Your task to perform on an android device: Show the shopping cart on costco. Search for "macbook pro 15 inch" on costco, select the first entry, add it to the cart, then select checkout. Image 0: 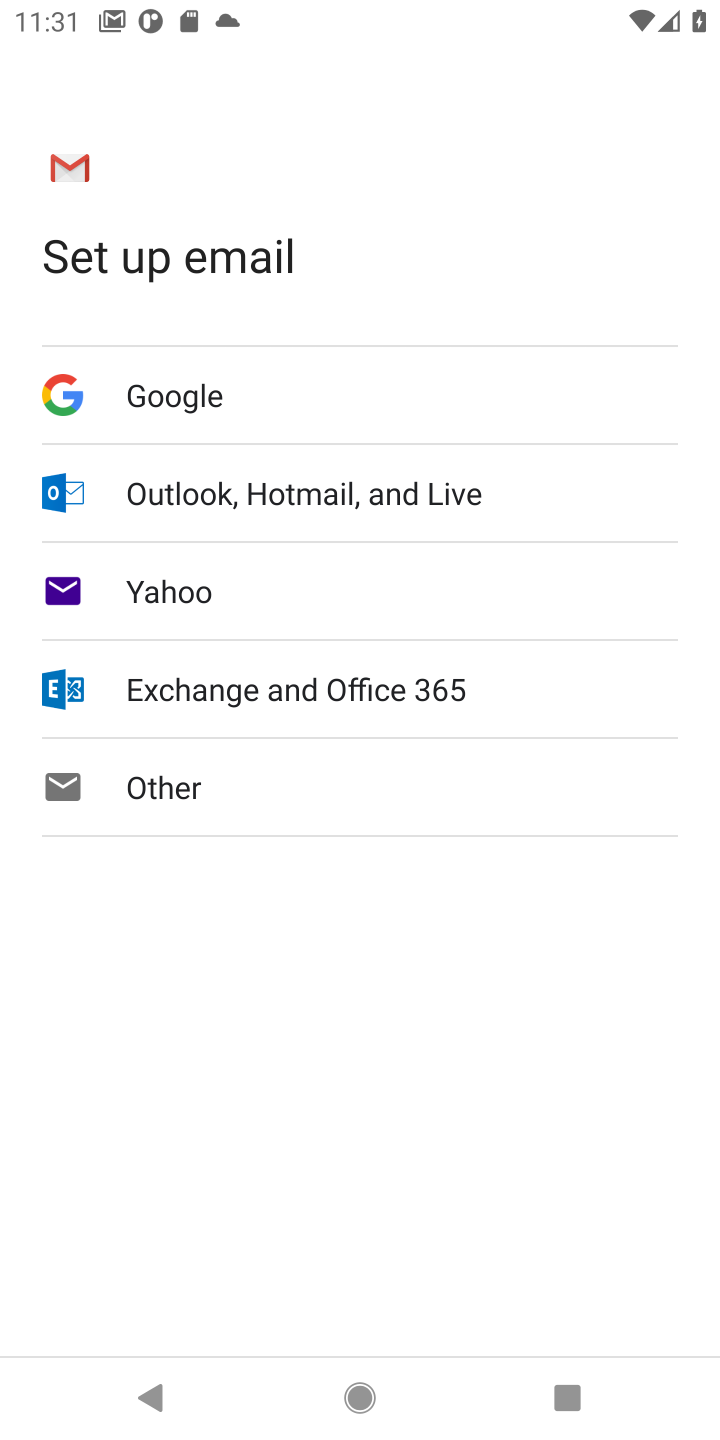
Step 0: press home button
Your task to perform on an android device: Show the shopping cart on costco. Search for "macbook pro 15 inch" on costco, select the first entry, add it to the cart, then select checkout. Image 1: 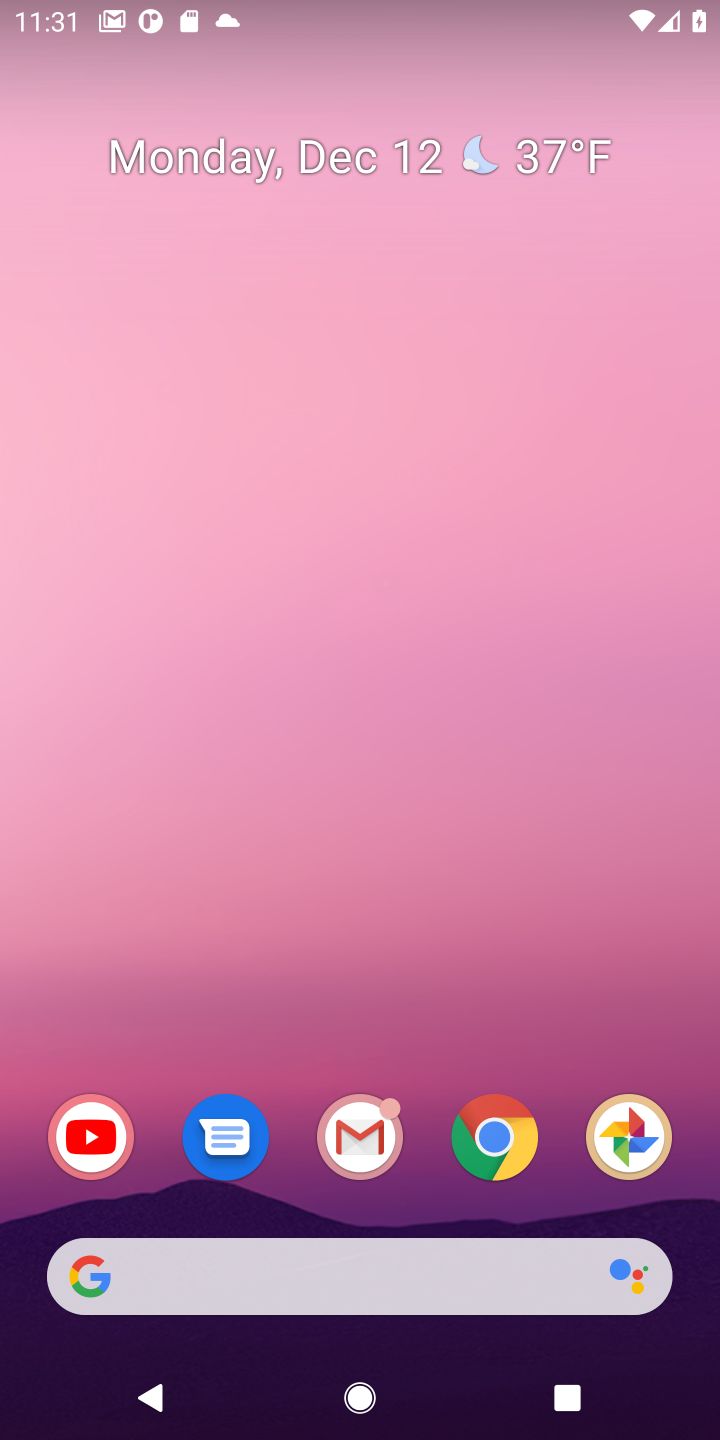
Step 1: click (425, 1265)
Your task to perform on an android device: Show the shopping cart on costco. Search for "macbook pro 15 inch" on costco, select the first entry, add it to the cart, then select checkout. Image 2: 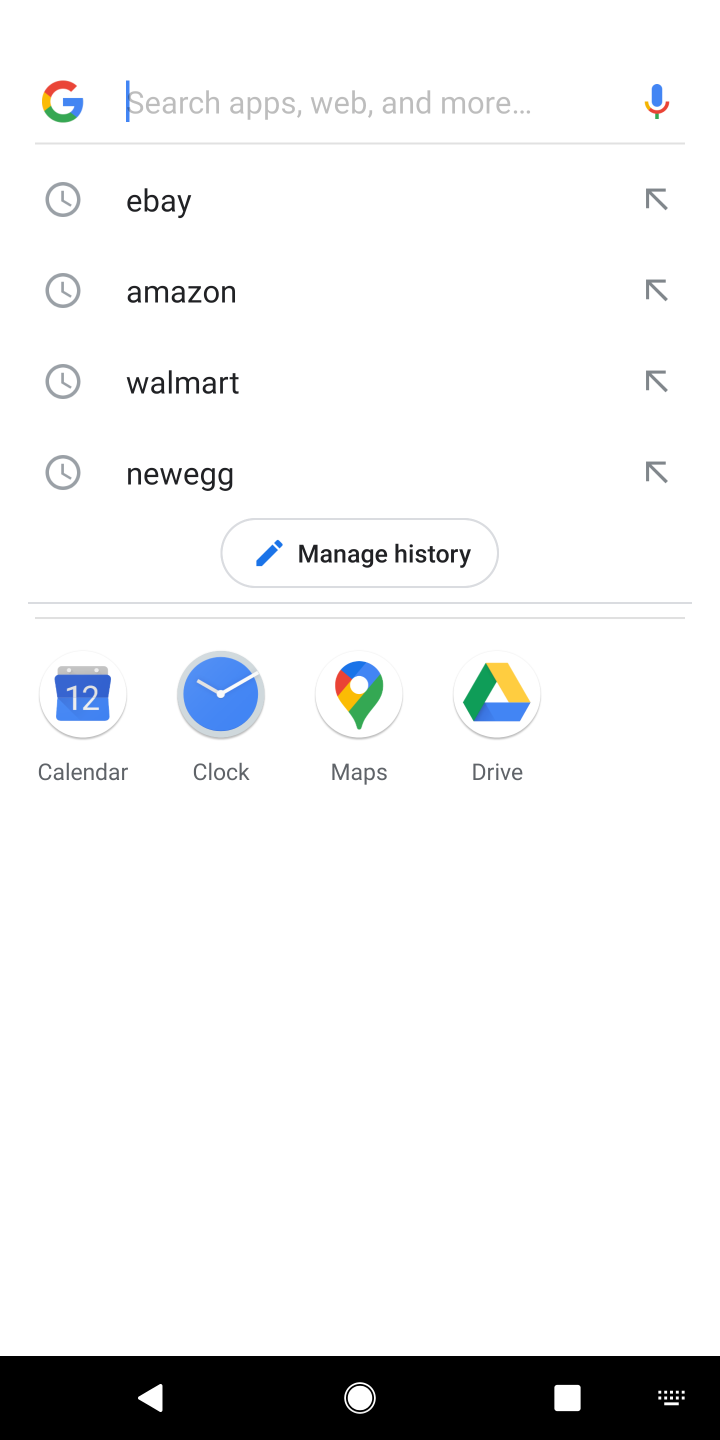
Step 2: type "costco"
Your task to perform on an android device: Show the shopping cart on costco. Search for "macbook pro 15 inch" on costco, select the first entry, add it to the cart, then select checkout. Image 3: 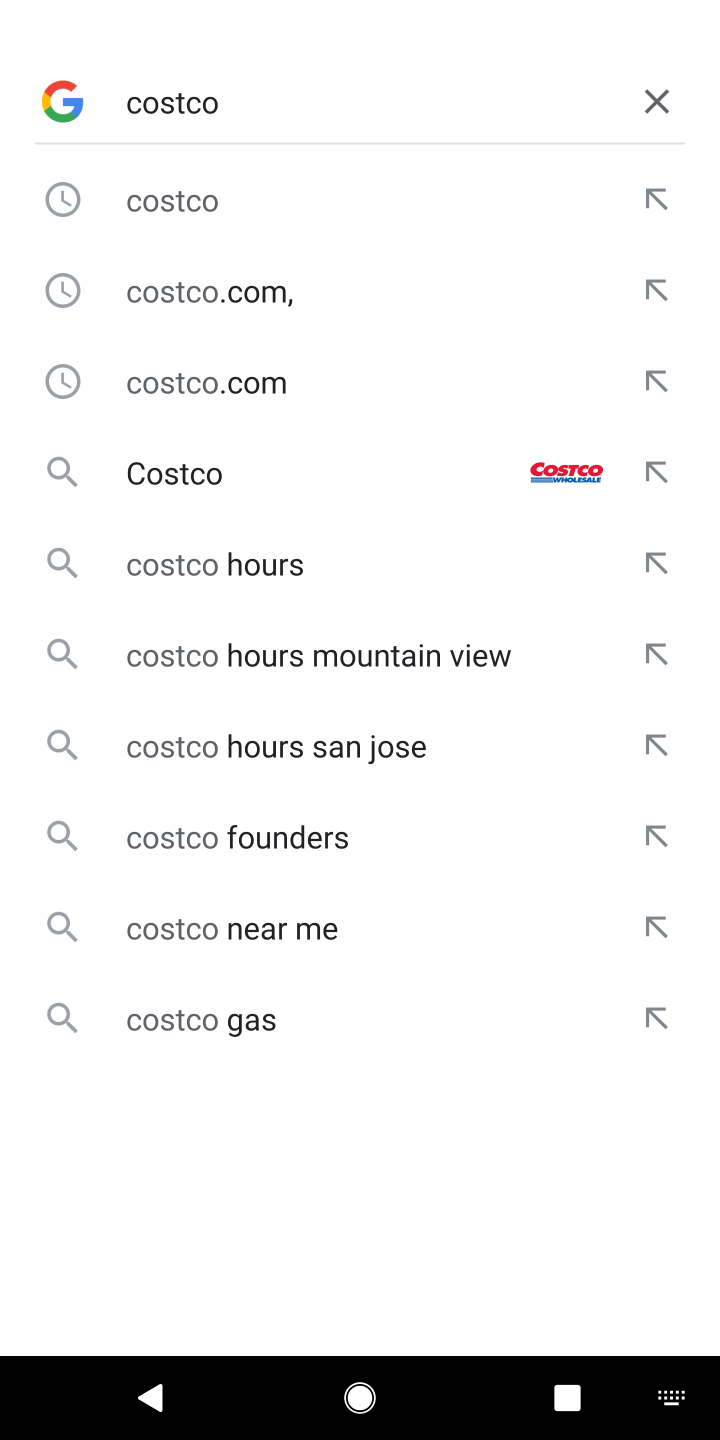
Step 3: click (293, 481)
Your task to perform on an android device: Show the shopping cart on costco. Search for "macbook pro 15 inch" on costco, select the first entry, add it to the cart, then select checkout. Image 4: 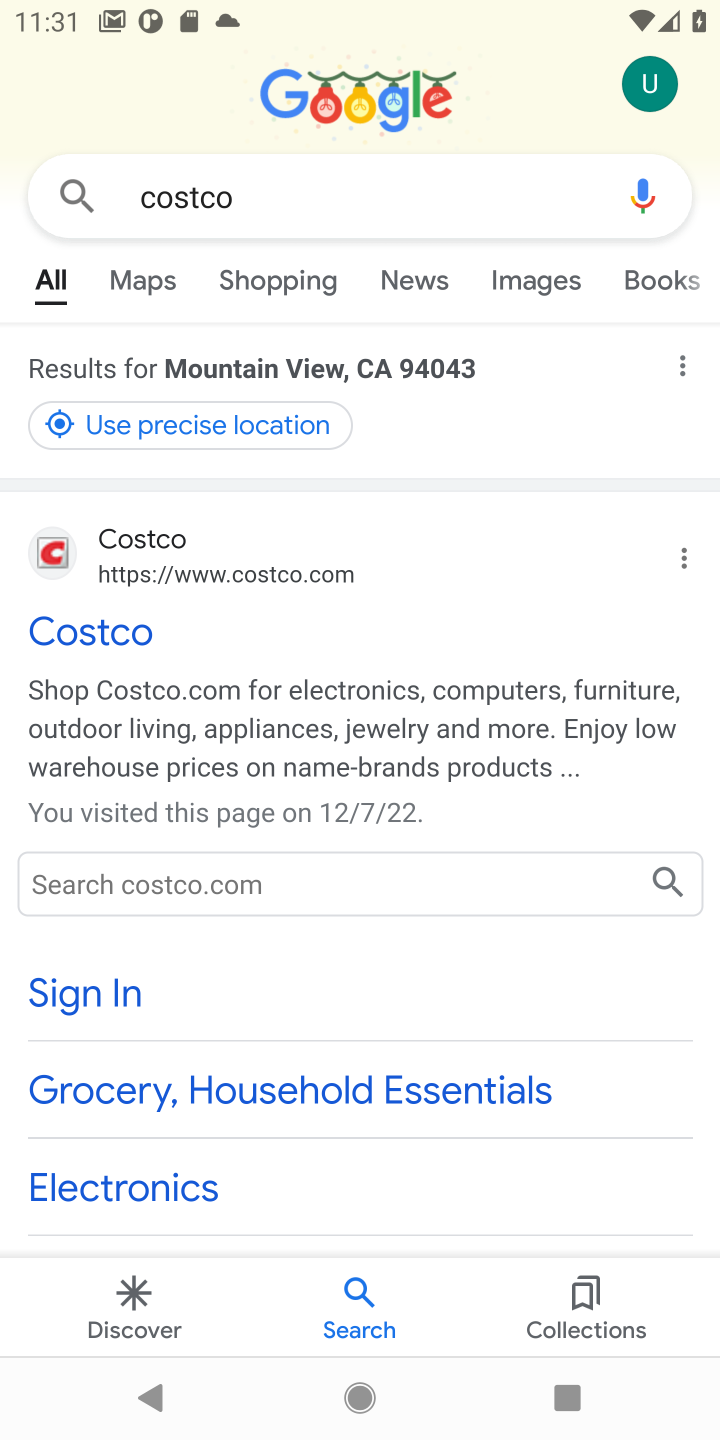
Step 4: click (131, 640)
Your task to perform on an android device: Show the shopping cart on costco. Search for "macbook pro 15 inch" on costco, select the first entry, add it to the cart, then select checkout. Image 5: 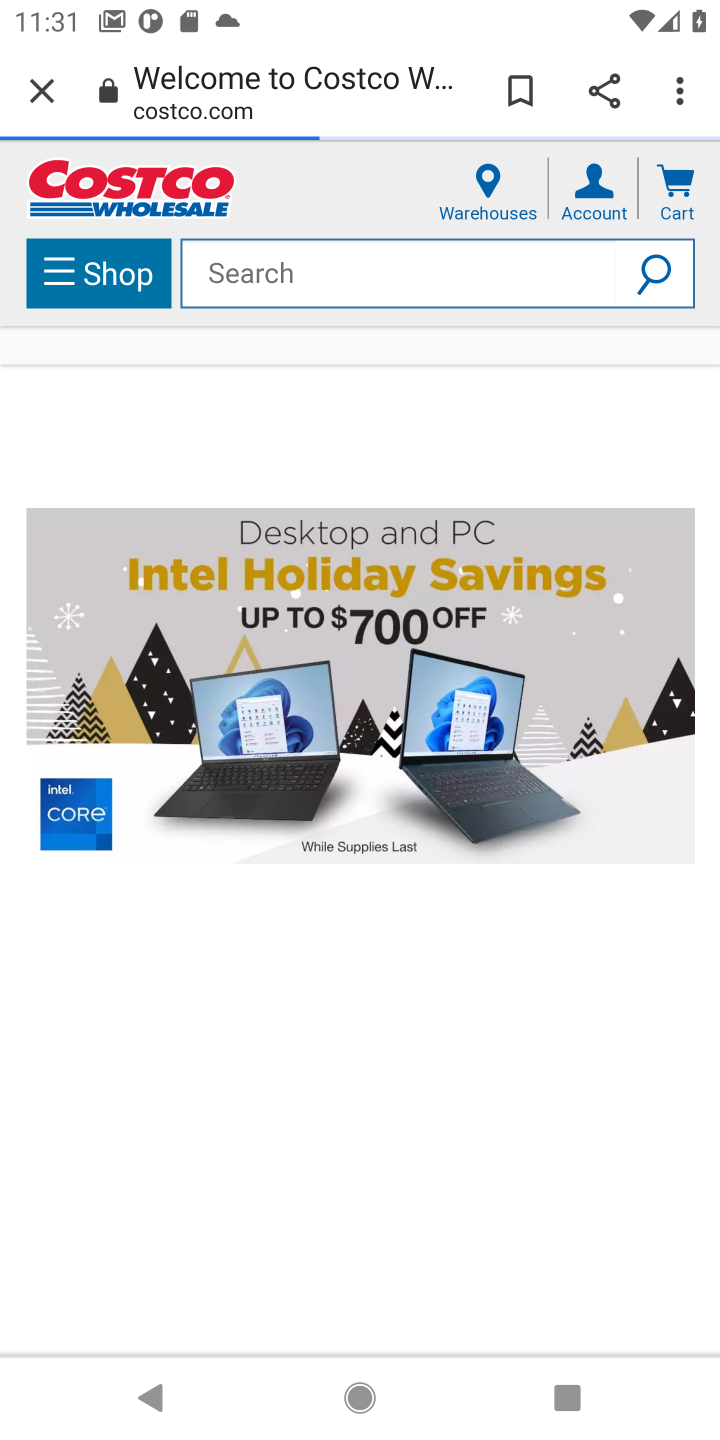
Step 5: click (361, 264)
Your task to perform on an android device: Show the shopping cart on costco. Search for "macbook pro 15 inch" on costco, select the first entry, add it to the cart, then select checkout. Image 6: 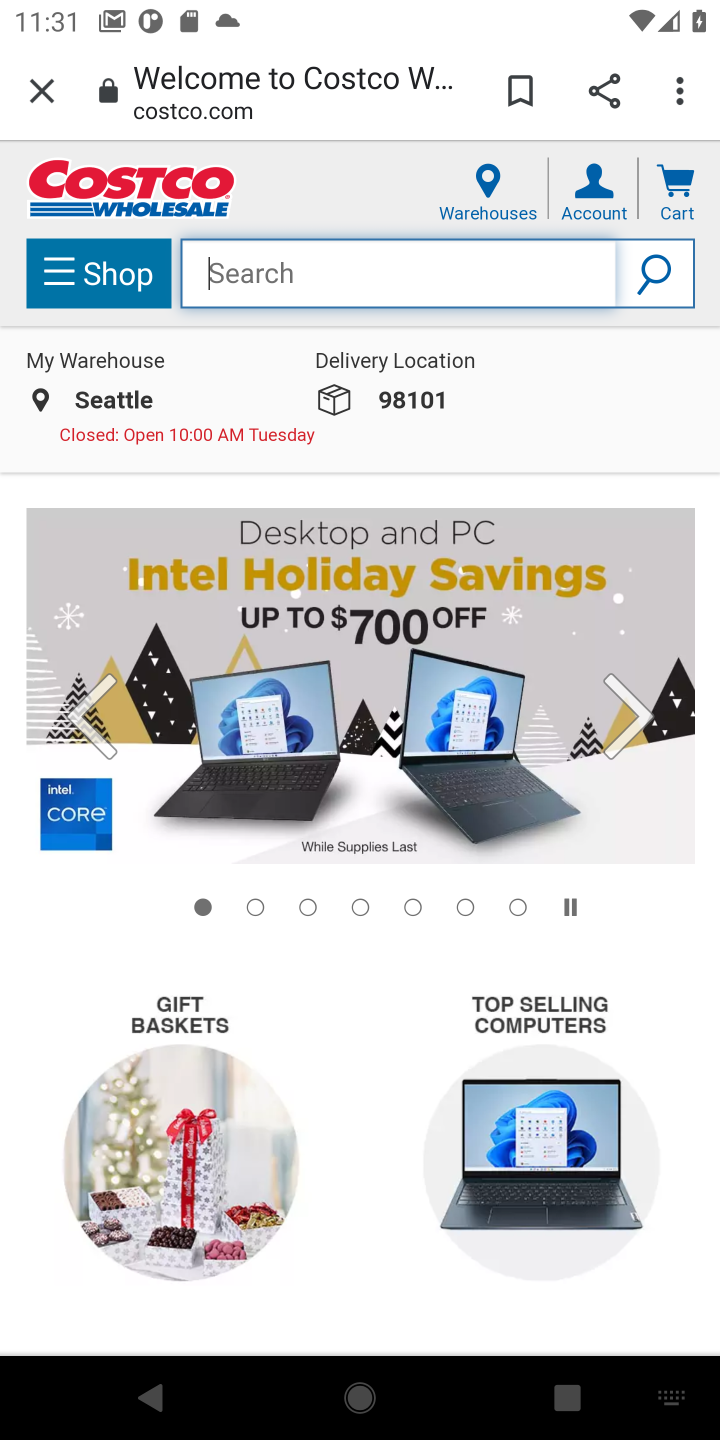
Step 6: type "macbook pro 15"
Your task to perform on an android device: Show the shopping cart on costco. Search for "macbook pro 15 inch" on costco, select the first entry, add it to the cart, then select checkout. Image 7: 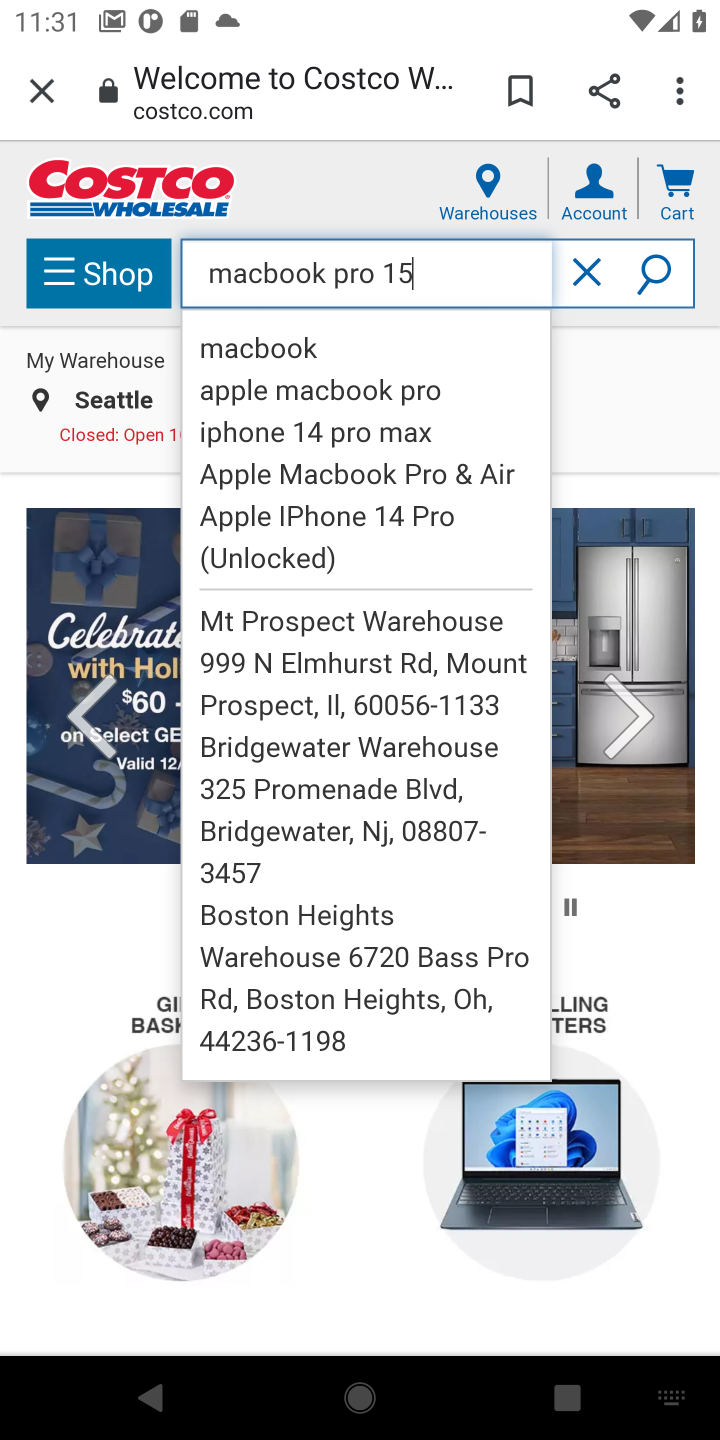
Step 7: click (655, 292)
Your task to perform on an android device: Show the shopping cart on costco. Search for "macbook pro 15 inch" on costco, select the first entry, add it to the cart, then select checkout. Image 8: 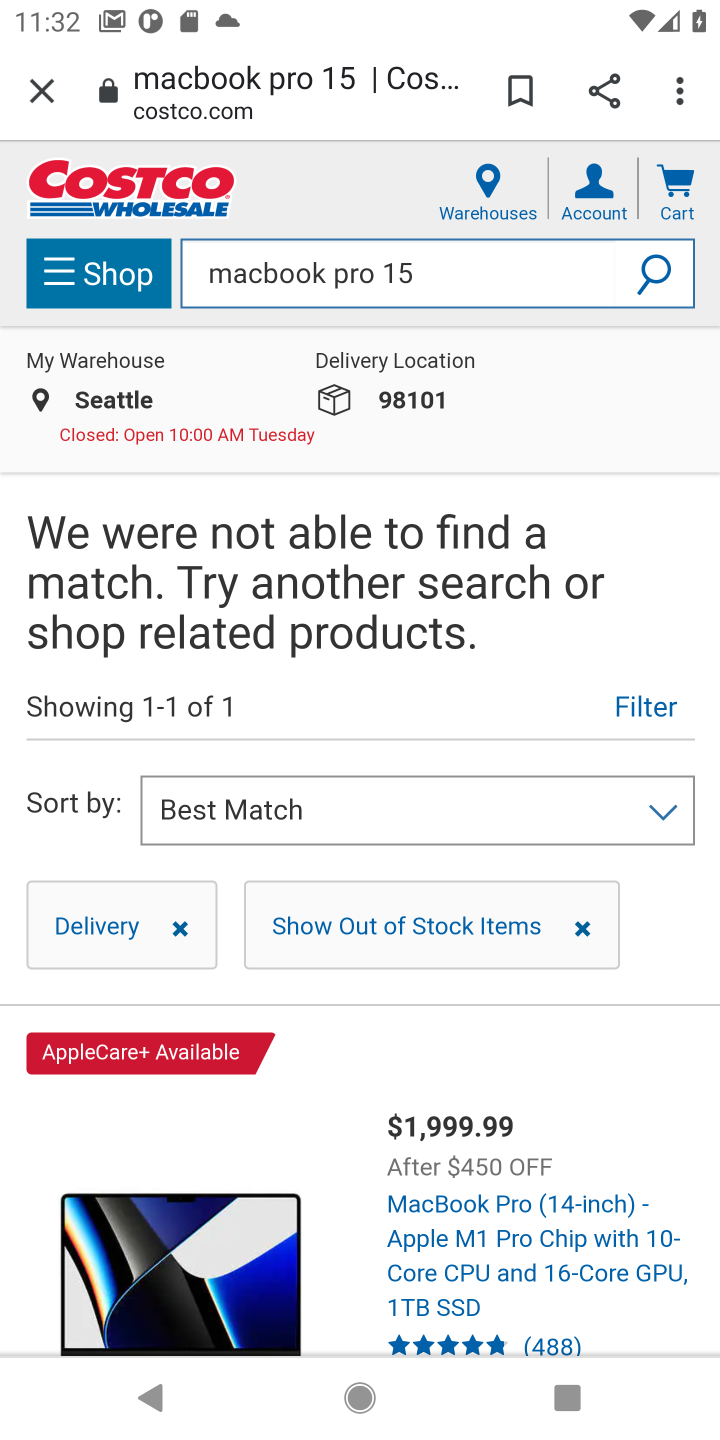
Step 8: click (425, 1247)
Your task to perform on an android device: Show the shopping cart on costco. Search for "macbook pro 15 inch" on costco, select the first entry, add it to the cart, then select checkout. Image 9: 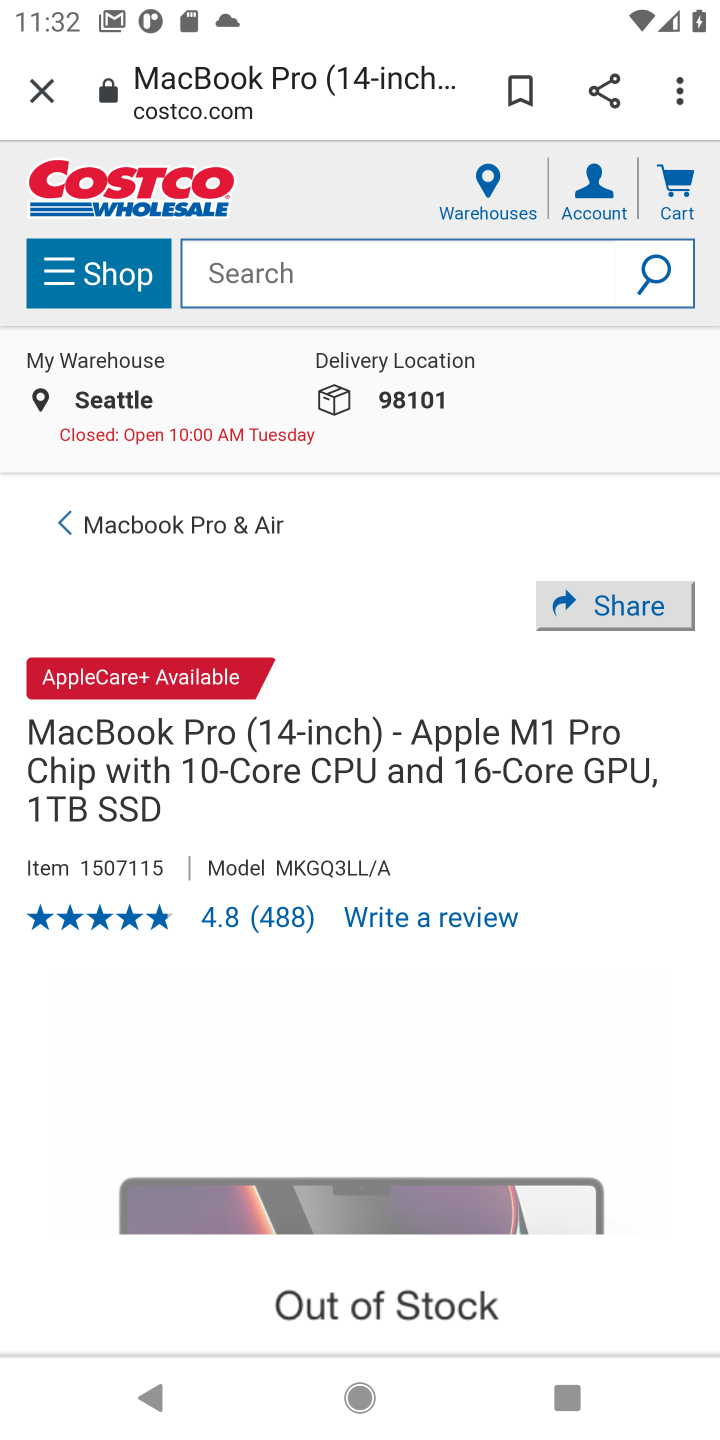
Step 9: task complete